Your task to perform on an android device: find photos in the google photos app Image 0: 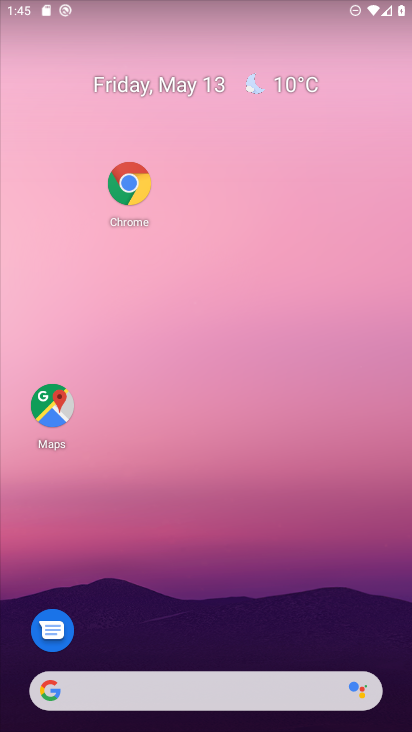
Step 0: drag from (191, 679) to (108, 87)
Your task to perform on an android device: find photos in the google photos app Image 1: 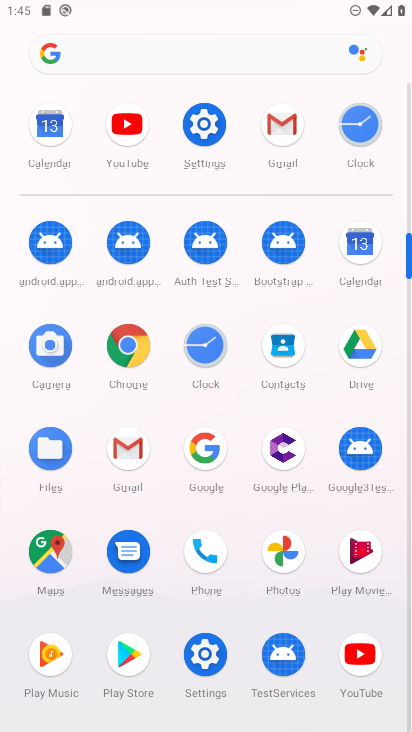
Step 1: click (295, 546)
Your task to perform on an android device: find photos in the google photos app Image 2: 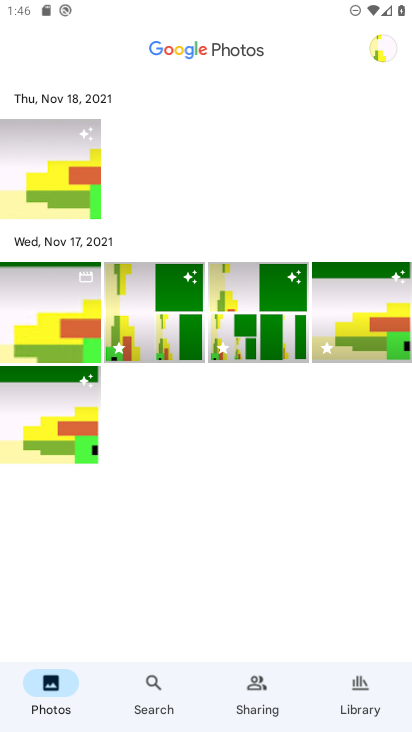
Step 2: task complete